Your task to perform on an android device: change the upload size in google photos Image 0: 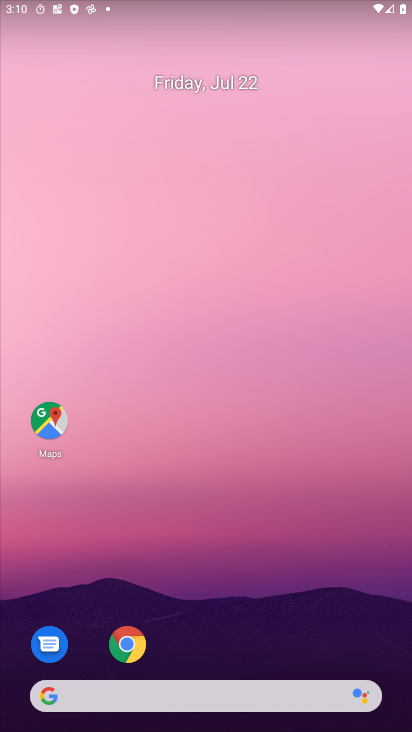
Step 0: drag from (201, 592) to (222, 177)
Your task to perform on an android device: change the upload size in google photos Image 1: 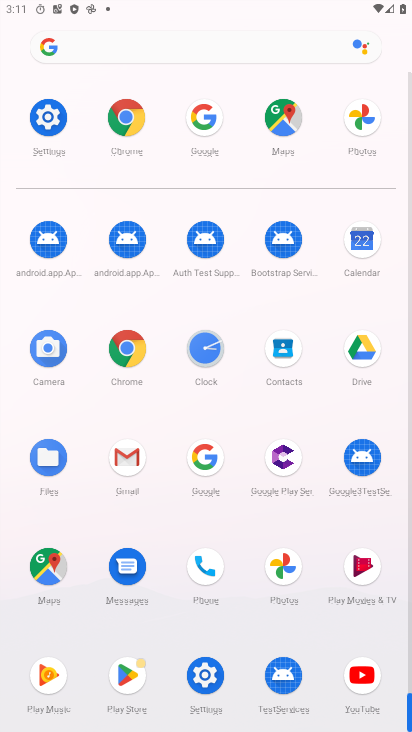
Step 1: click (283, 584)
Your task to perform on an android device: change the upload size in google photos Image 2: 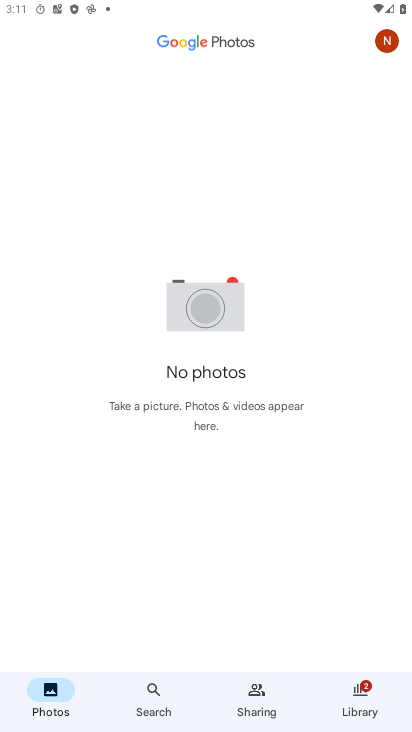
Step 2: click (386, 52)
Your task to perform on an android device: change the upload size in google photos Image 3: 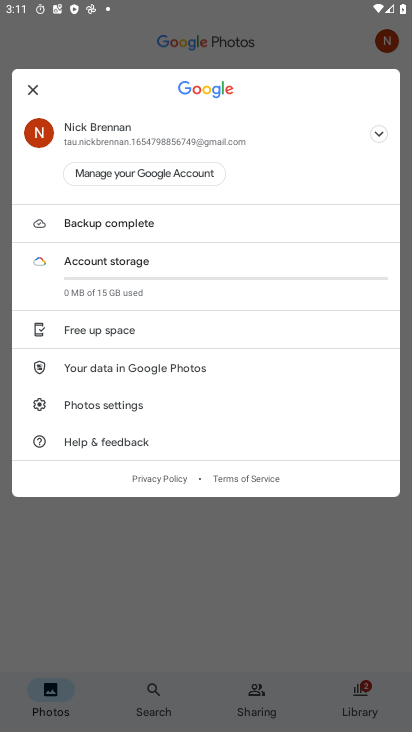
Step 3: click (88, 412)
Your task to perform on an android device: change the upload size in google photos Image 4: 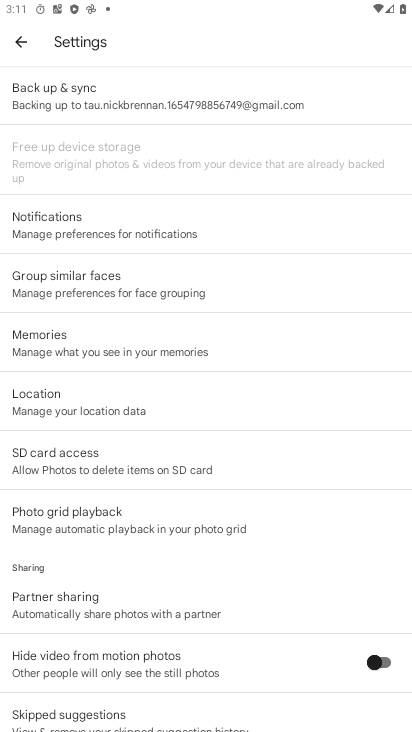
Step 4: click (71, 113)
Your task to perform on an android device: change the upload size in google photos Image 5: 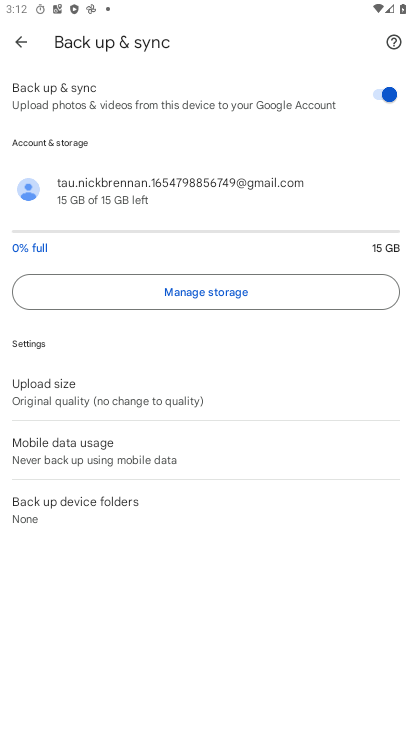
Step 5: click (95, 389)
Your task to perform on an android device: change the upload size in google photos Image 6: 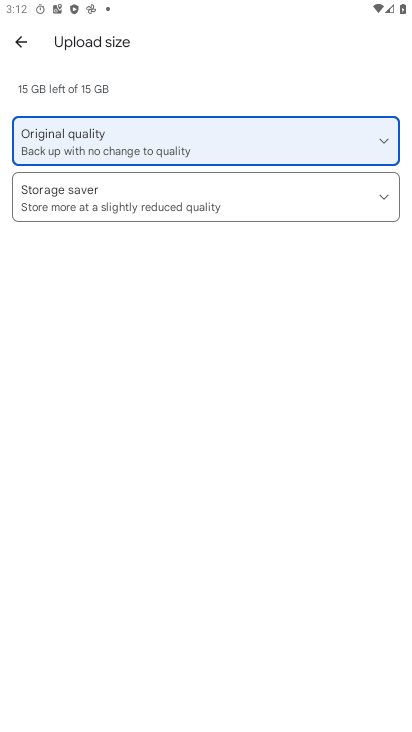
Step 6: click (132, 199)
Your task to perform on an android device: change the upload size in google photos Image 7: 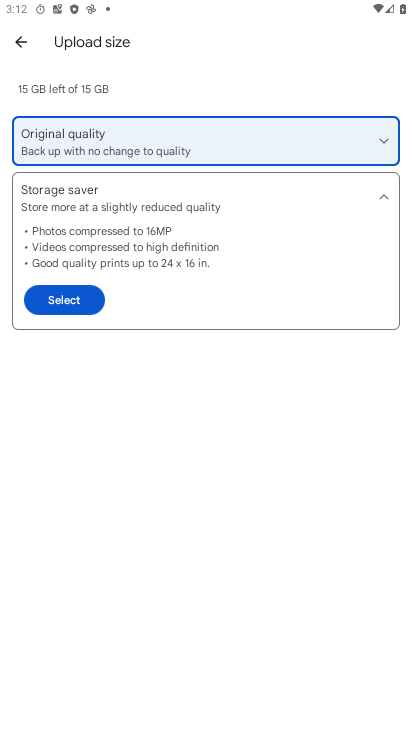
Step 7: click (72, 308)
Your task to perform on an android device: change the upload size in google photos Image 8: 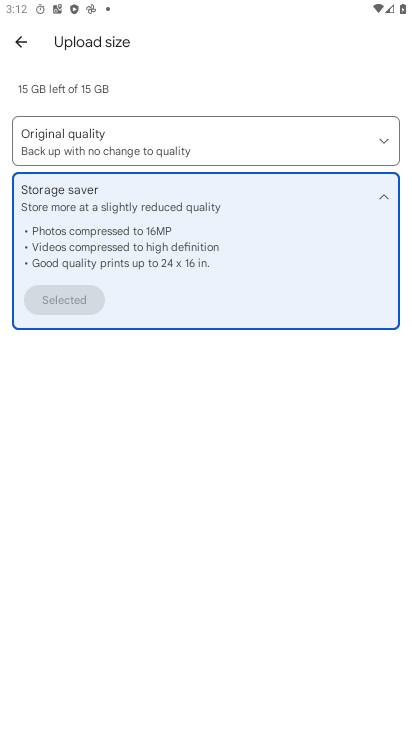
Step 8: task complete